Your task to perform on an android device: turn notification dots on Image 0: 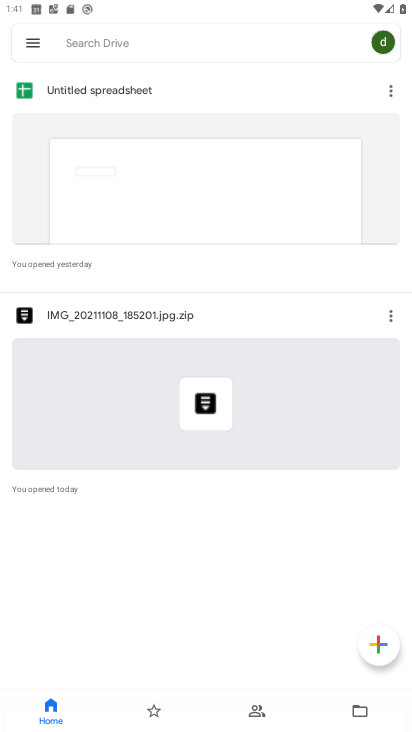
Step 0: press home button
Your task to perform on an android device: turn notification dots on Image 1: 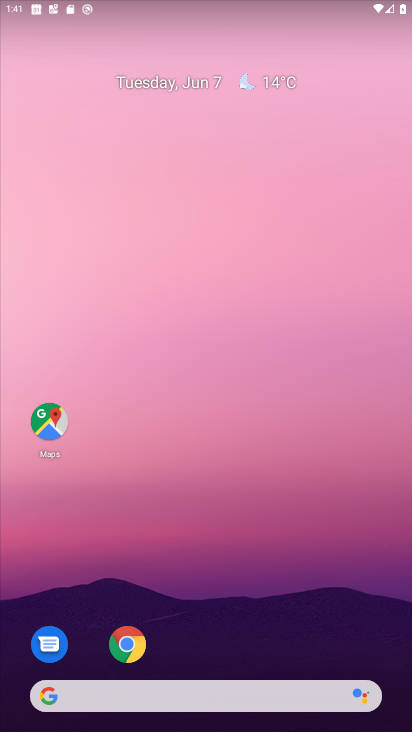
Step 1: drag from (328, 586) to (309, 1)
Your task to perform on an android device: turn notification dots on Image 2: 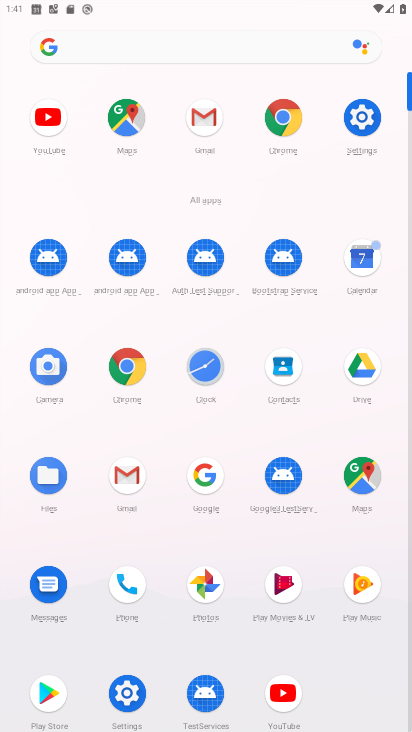
Step 2: click (363, 116)
Your task to perform on an android device: turn notification dots on Image 3: 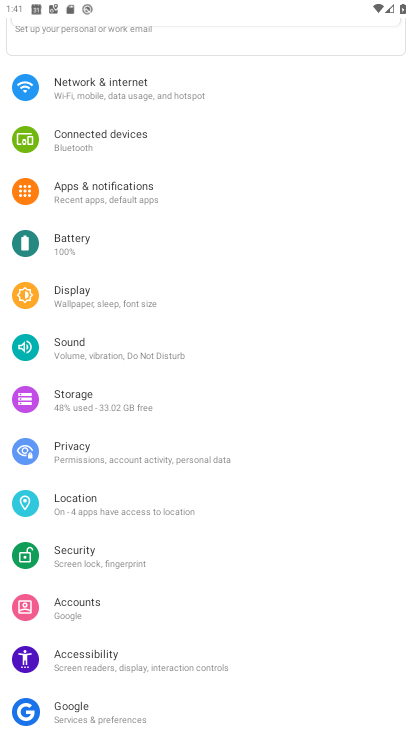
Step 3: click (134, 202)
Your task to perform on an android device: turn notification dots on Image 4: 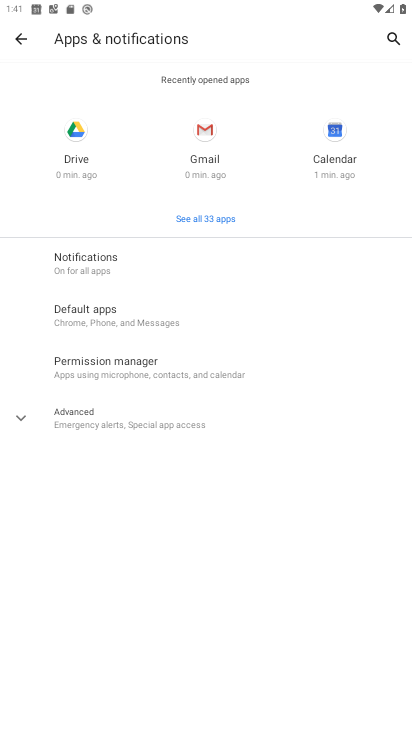
Step 4: click (117, 273)
Your task to perform on an android device: turn notification dots on Image 5: 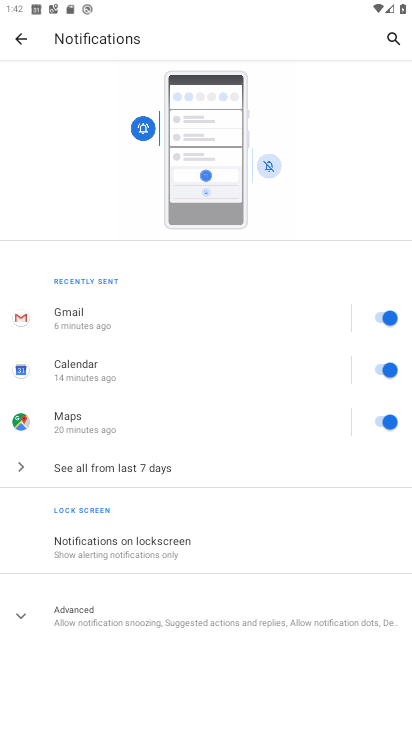
Step 5: click (89, 603)
Your task to perform on an android device: turn notification dots on Image 6: 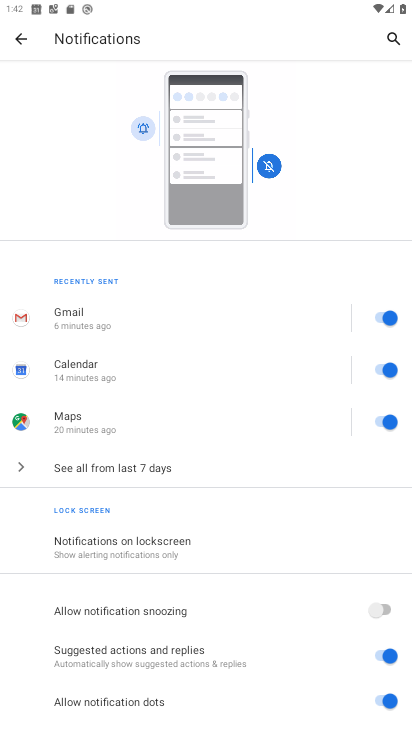
Step 6: task complete